Your task to perform on an android device: turn on data saver in the chrome app Image 0: 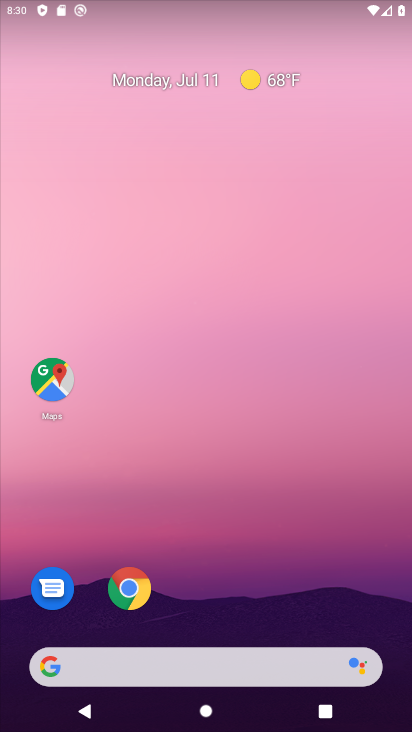
Step 0: drag from (214, 609) to (173, 79)
Your task to perform on an android device: turn on data saver in the chrome app Image 1: 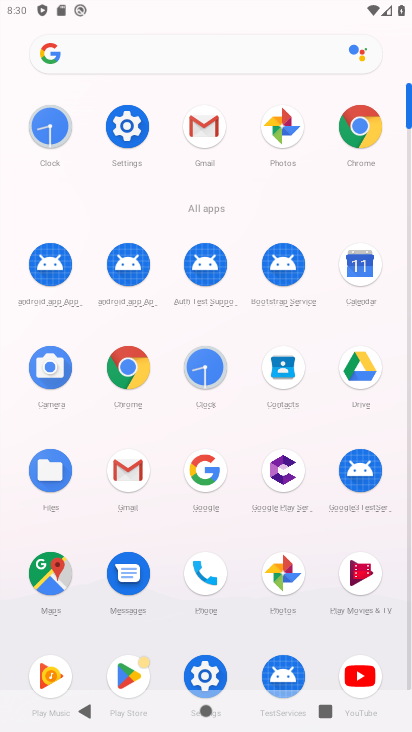
Step 1: click (122, 378)
Your task to perform on an android device: turn on data saver in the chrome app Image 2: 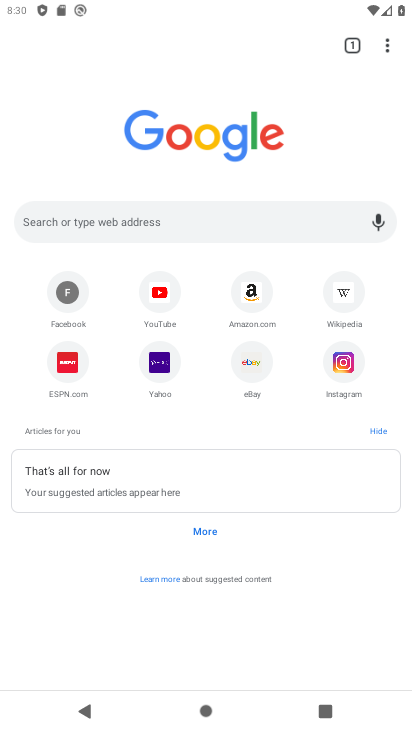
Step 2: drag from (386, 45) to (218, 375)
Your task to perform on an android device: turn on data saver in the chrome app Image 3: 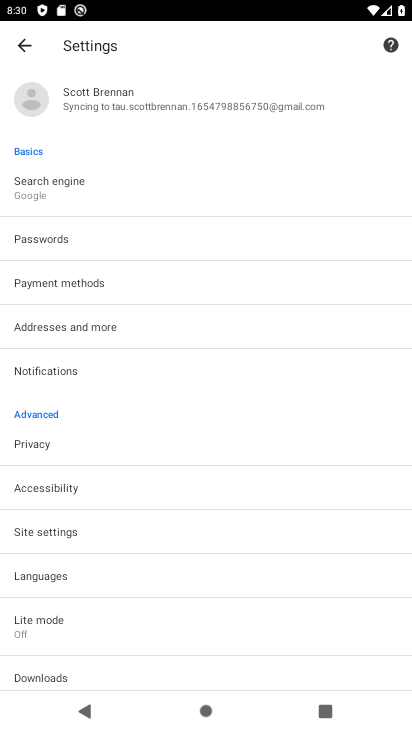
Step 3: click (72, 611)
Your task to perform on an android device: turn on data saver in the chrome app Image 4: 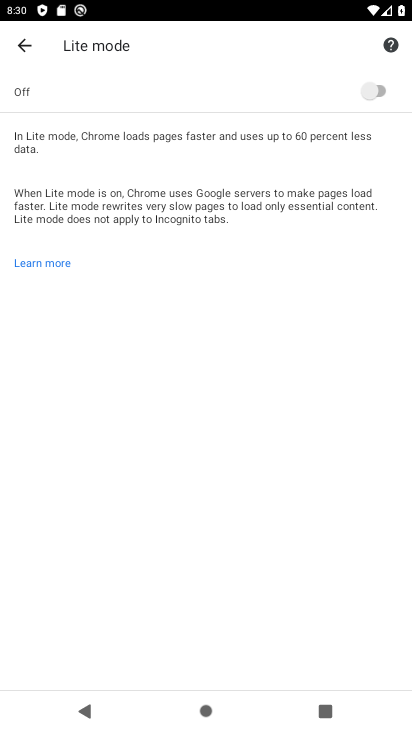
Step 4: click (364, 88)
Your task to perform on an android device: turn on data saver in the chrome app Image 5: 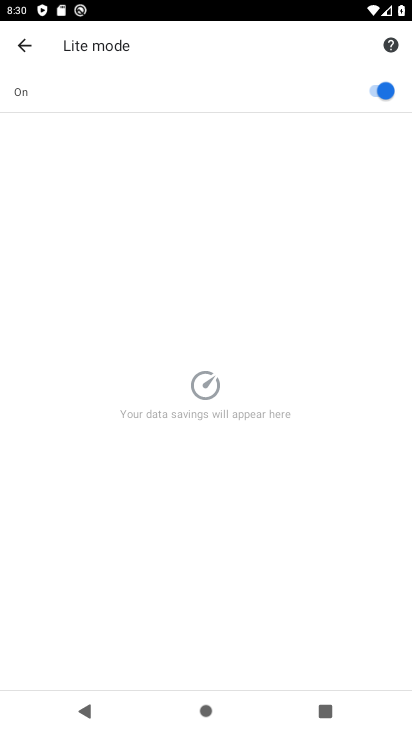
Step 5: task complete